Your task to perform on an android device: remove spam from my inbox in the gmail app Image 0: 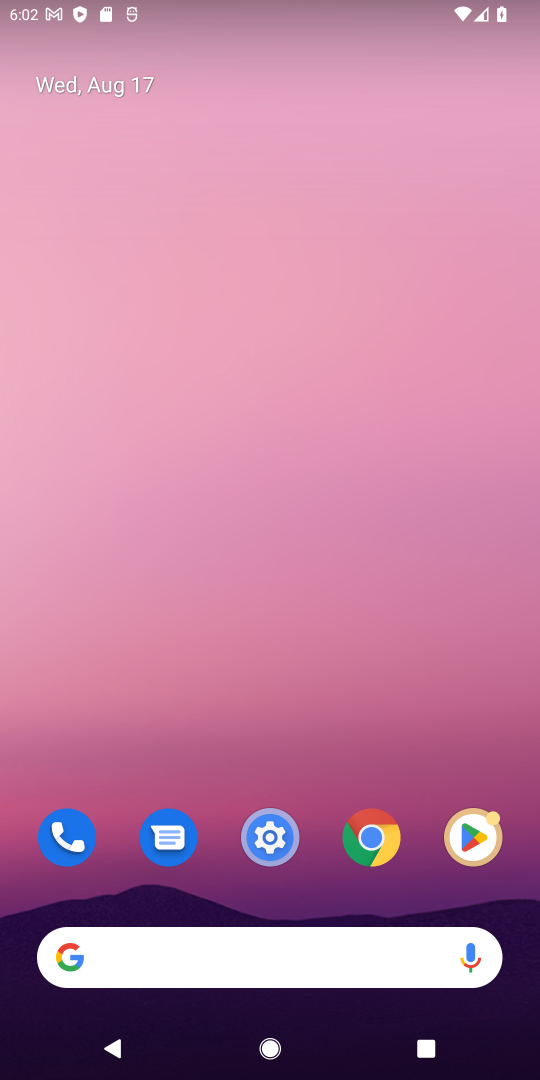
Step 0: drag from (227, 827) to (327, 28)
Your task to perform on an android device: remove spam from my inbox in the gmail app Image 1: 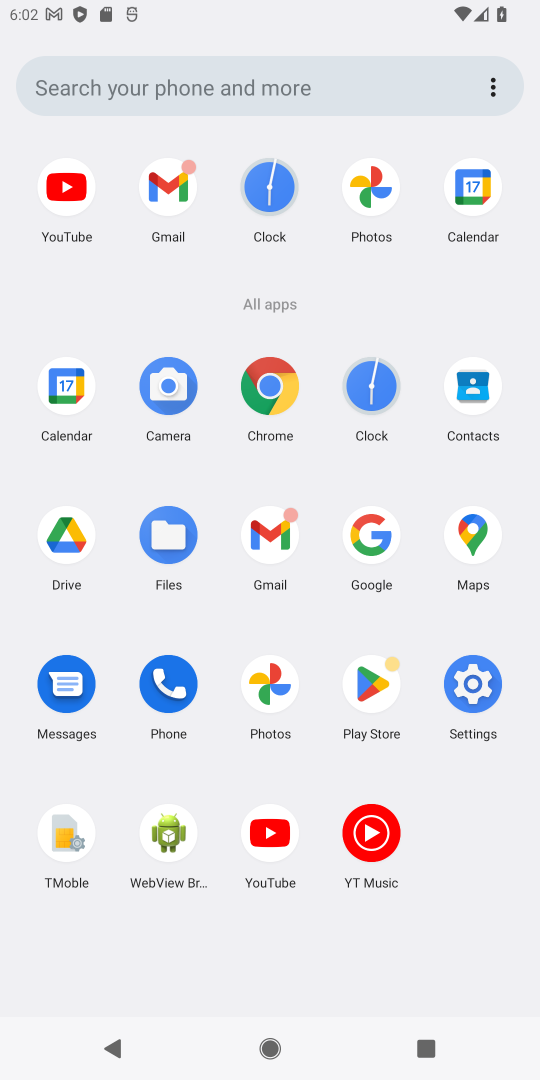
Step 1: click (167, 195)
Your task to perform on an android device: remove spam from my inbox in the gmail app Image 2: 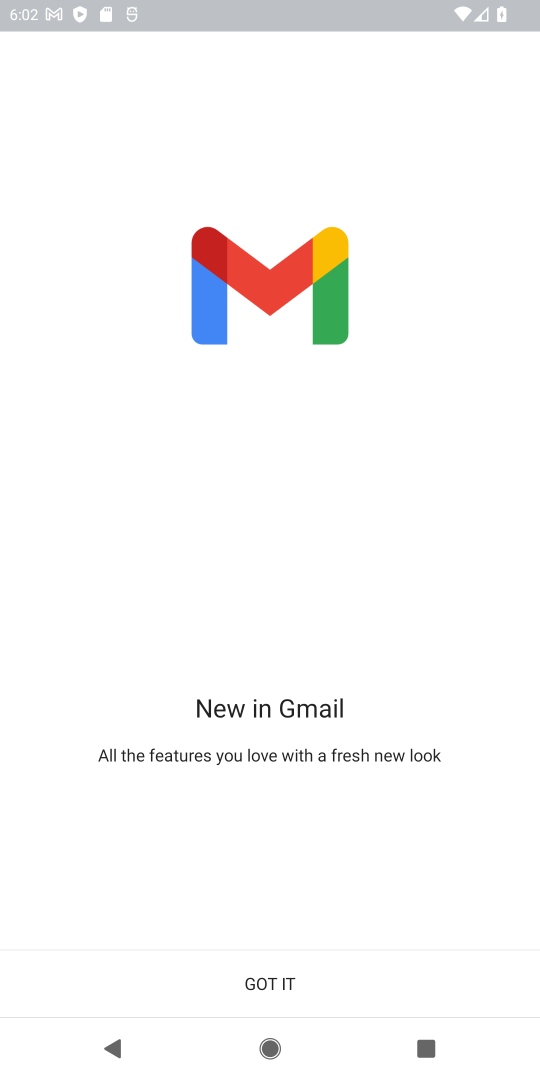
Step 2: click (272, 979)
Your task to perform on an android device: remove spam from my inbox in the gmail app Image 3: 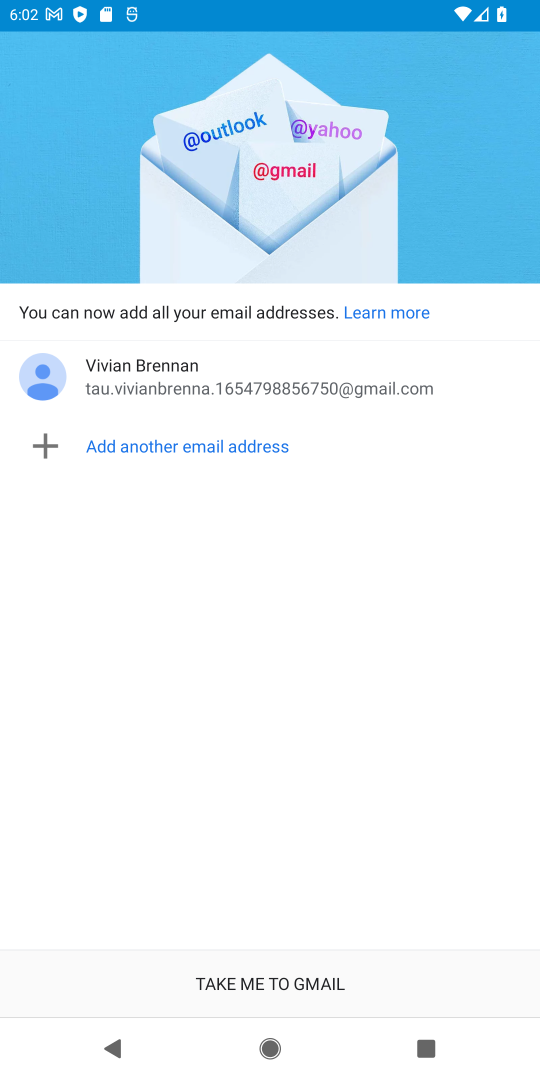
Step 3: click (270, 987)
Your task to perform on an android device: remove spam from my inbox in the gmail app Image 4: 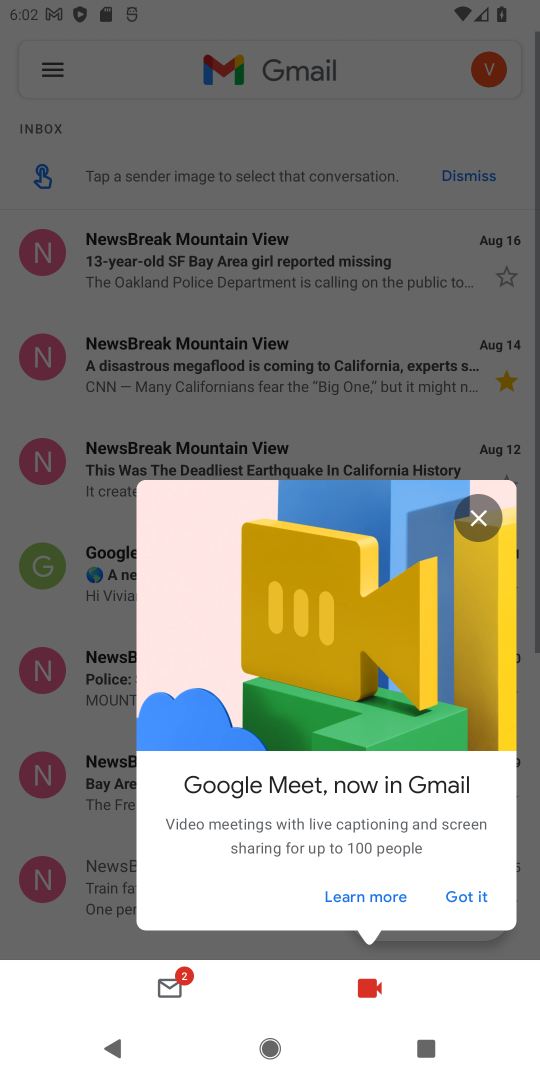
Step 4: click (461, 890)
Your task to perform on an android device: remove spam from my inbox in the gmail app Image 5: 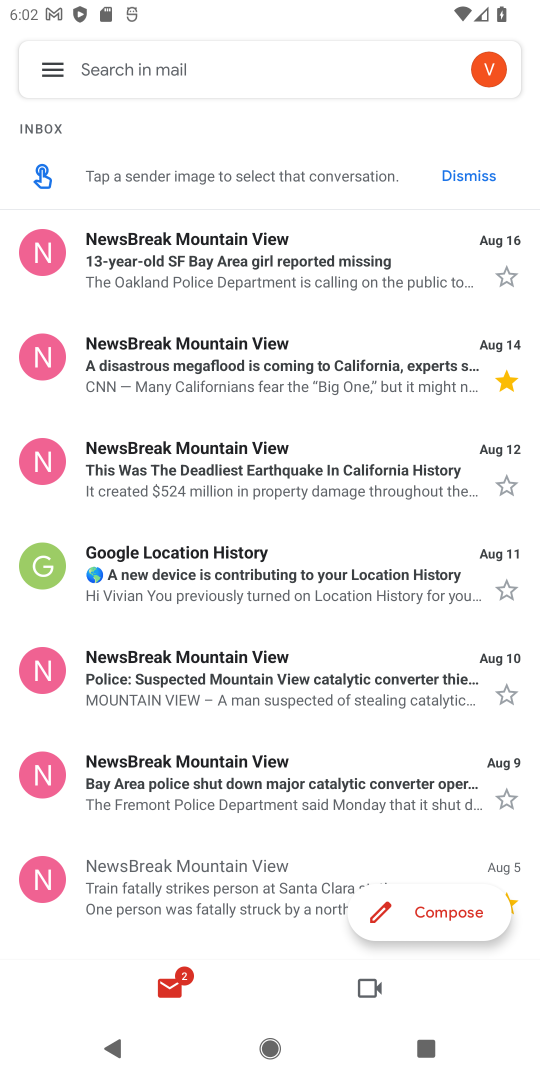
Step 5: click (52, 57)
Your task to perform on an android device: remove spam from my inbox in the gmail app Image 6: 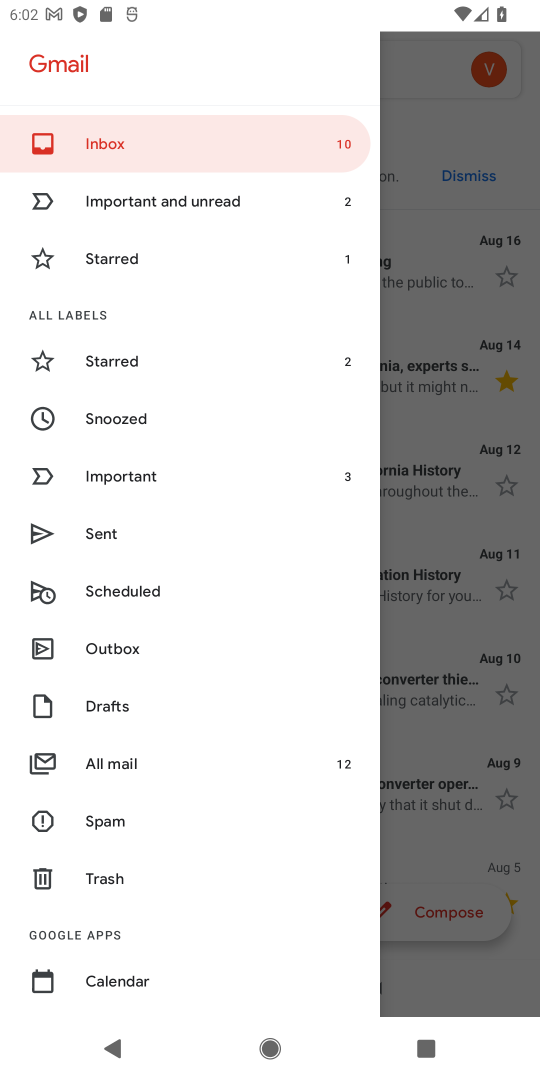
Step 6: click (143, 812)
Your task to perform on an android device: remove spam from my inbox in the gmail app Image 7: 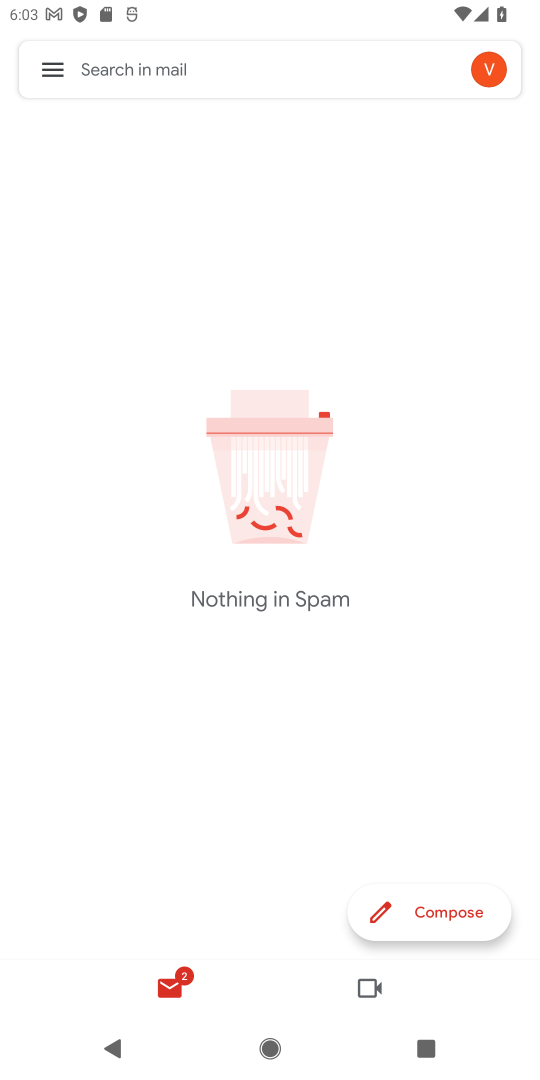
Step 7: task complete